Your task to perform on an android device: change your default location settings in chrome Image 0: 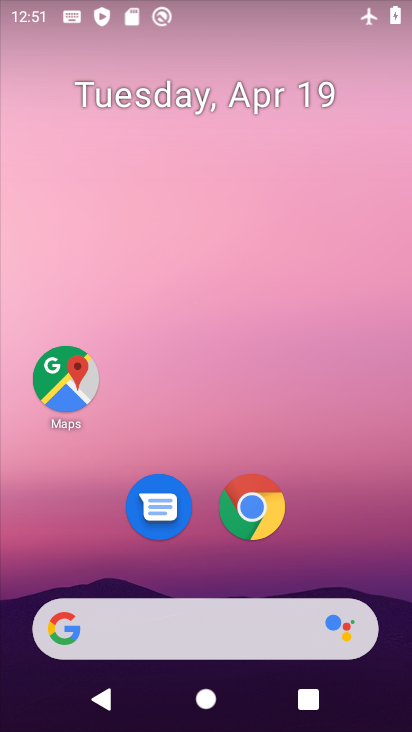
Step 0: drag from (214, 561) to (220, 15)
Your task to perform on an android device: change your default location settings in chrome Image 1: 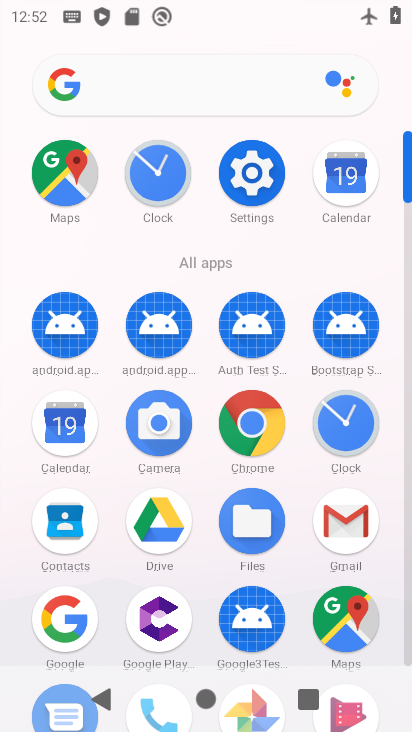
Step 1: click (251, 417)
Your task to perform on an android device: change your default location settings in chrome Image 2: 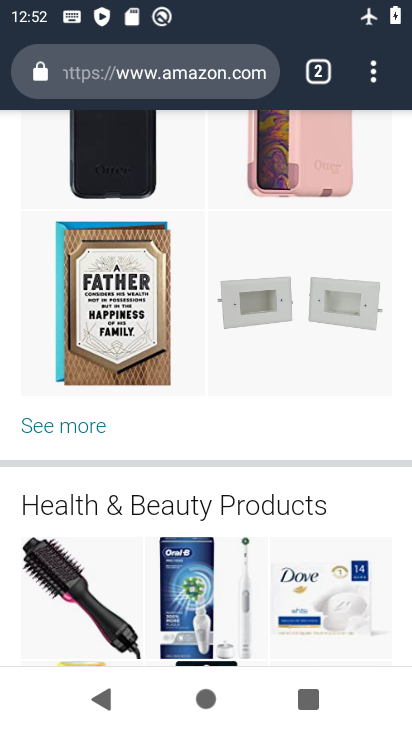
Step 2: click (369, 71)
Your task to perform on an android device: change your default location settings in chrome Image 3: 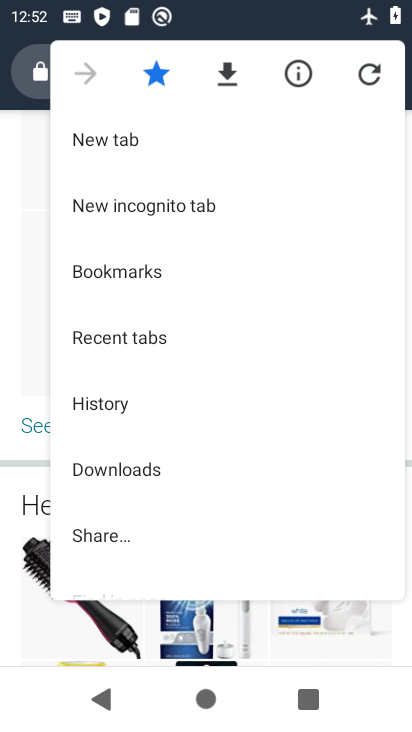
Step 3: drag from (199, 504) to (214, 79)
Your task to perform on an android device: change your default location settings in chrome Image 4: 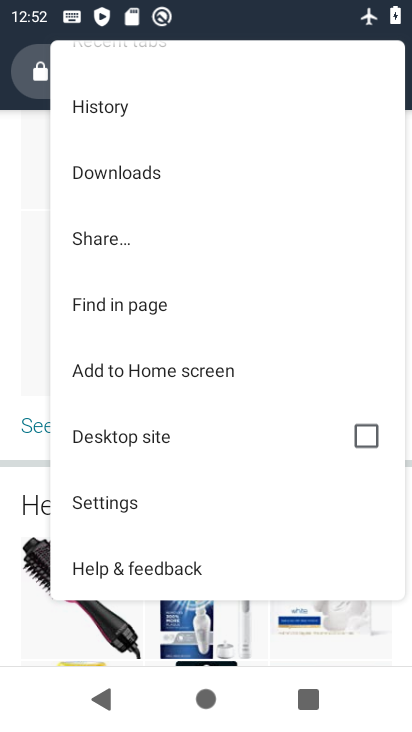
Step 4: click (153, 499)
Your task to perform on an android device: change your default location settings in chrome Image 5: 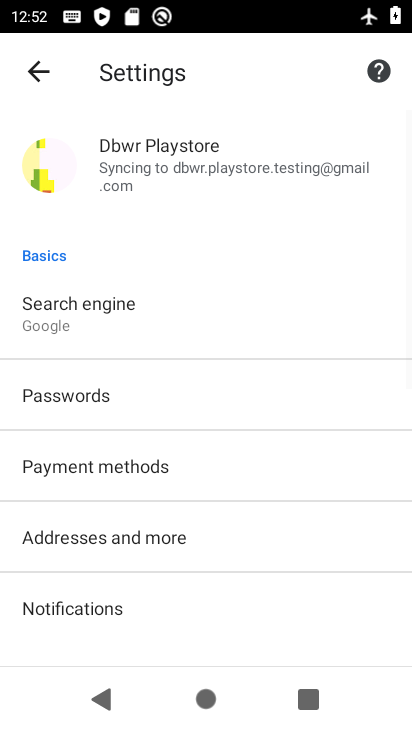
Step 5: drag from (219, 592) to (250, 84)
Your task to perform on an android device: change your default location settings in chrome Image 6: 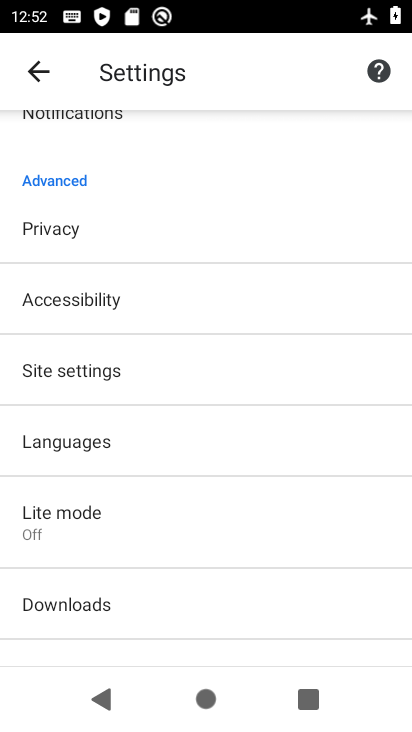
Step 6: click (167, 371)
Your task to perform on an android device: change your default location settings in chrome Image 7: 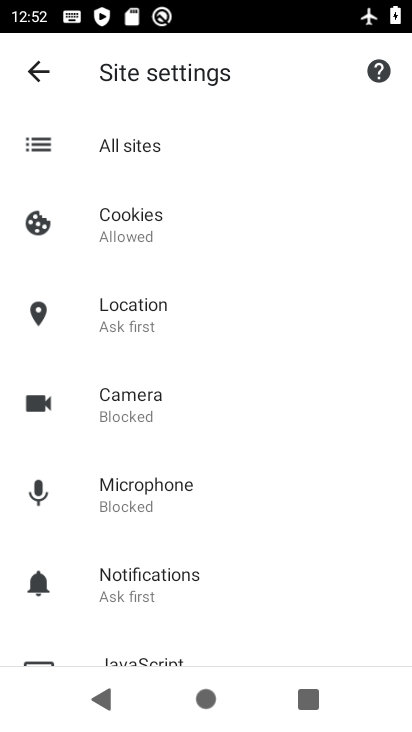
Step 7: click (180, 318)
Your task to perform on an android device: change your default location settings in chrome Image 8: 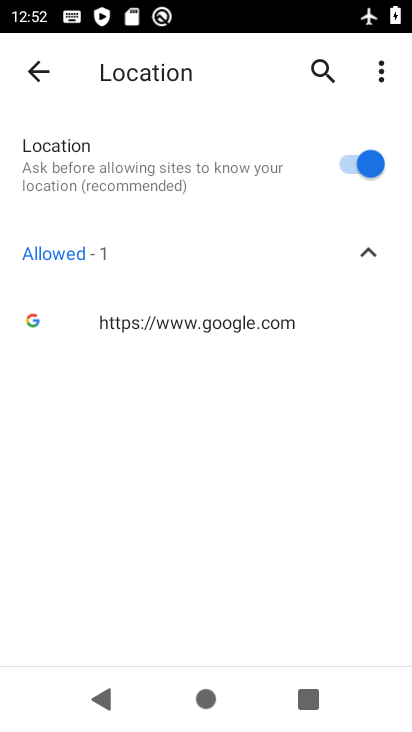
Step 8: click (354, 159)
Your task to perform on an android device: change your default location settings in chrome Image 9: 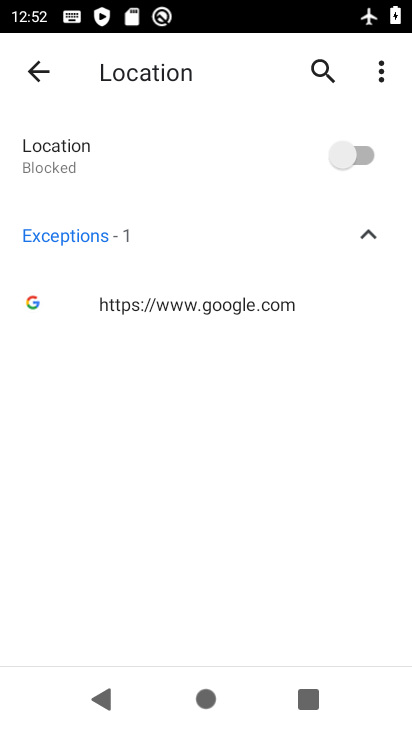
Step 9: task complete